Your task to perform on an android device: Open eBay Image 0: 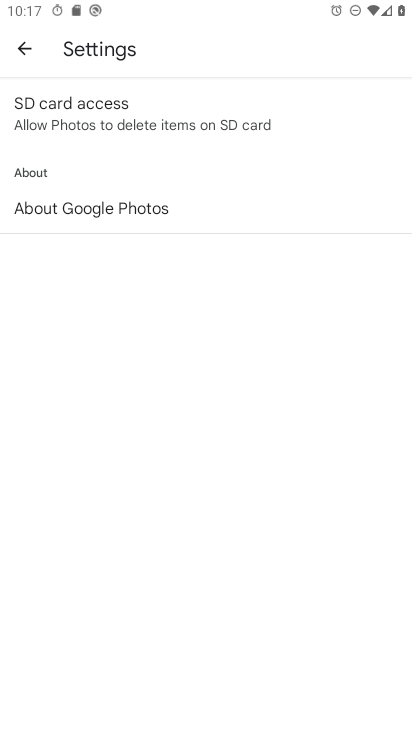
Step 0: press home button
Your task to perform on an android device: Open eBay Image 1: 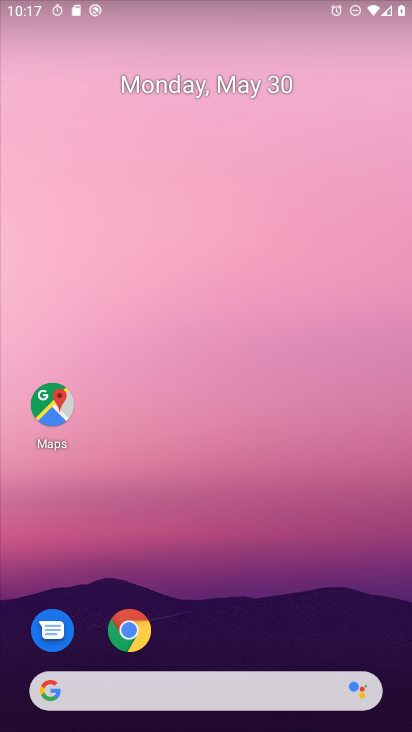
Step 1: drag from (377, 548) to (396, 512)
Your task to perform on an android device: Open eBay Image 2: 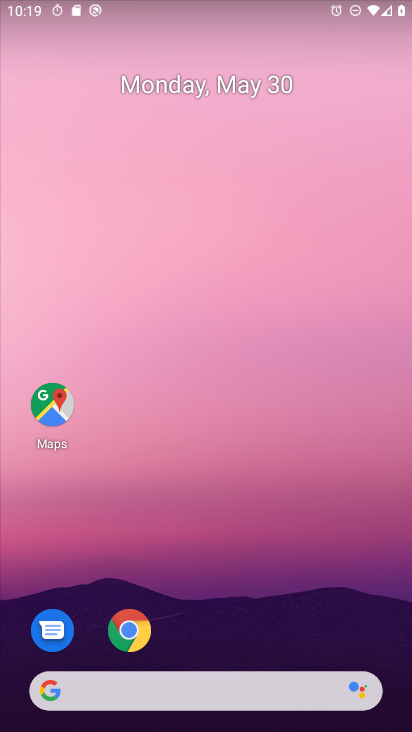
Step 2: drag from (269, 617) to (210, 18)
Your task to perform on an android device: Open eBay Image 3: 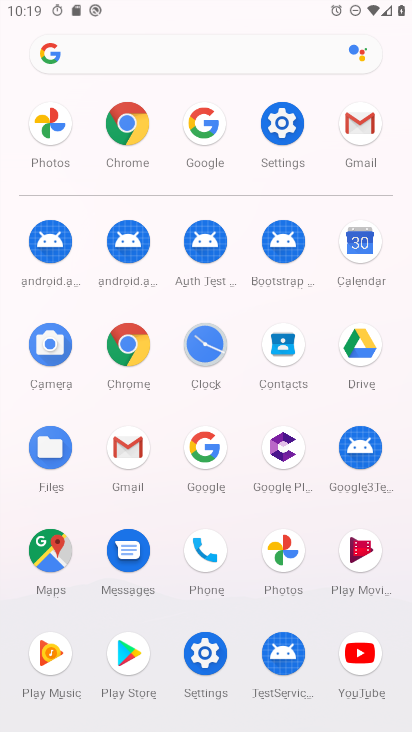
Step 3: click (207, 438)
Your task to perform on an android device: Open eBay Image 4: 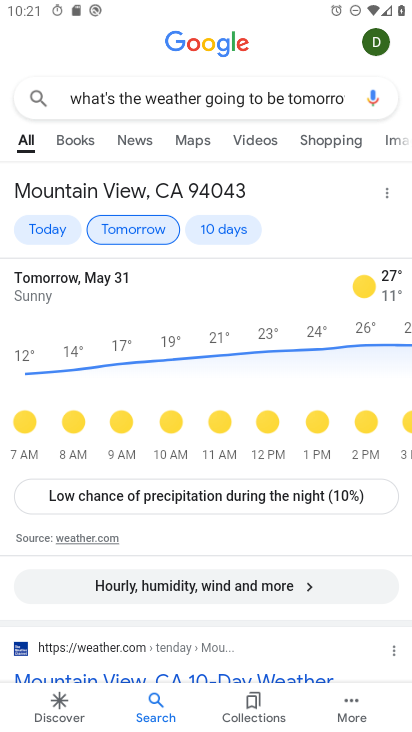
Step 4: press back button
Your task to perform on an android device: Open eBay Image 5: 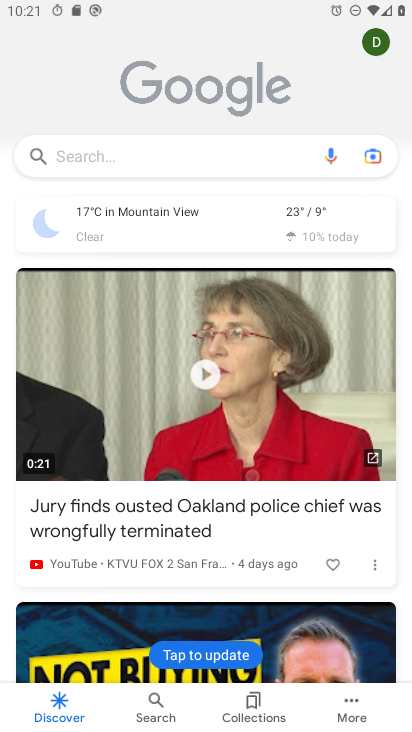
Step 5: click (147, 155)
Your task to perform on an android device: Open eBay Image 6: 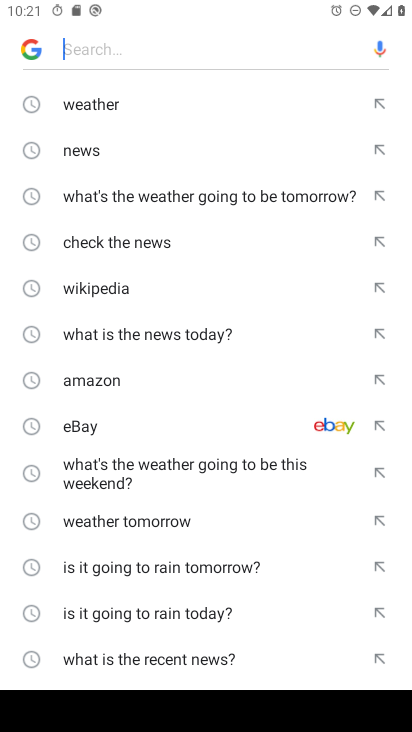
Step 6: click (150, 413)
Your task to perform on an android device: Open eBay Image 7: 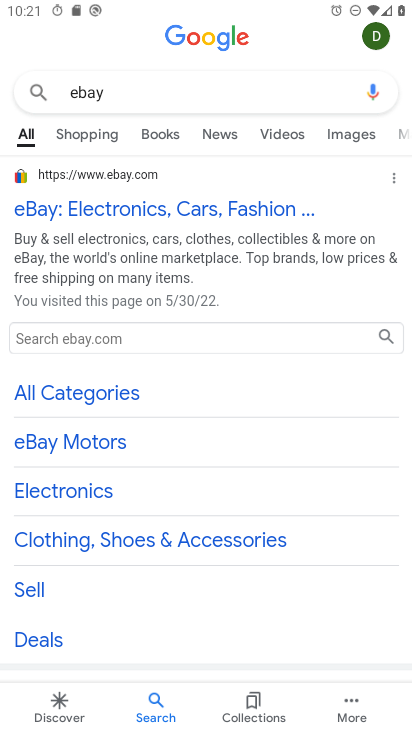
Step 7: task complete